Your task to perform on an android device: toggle data saver in the chrome app Image 0: 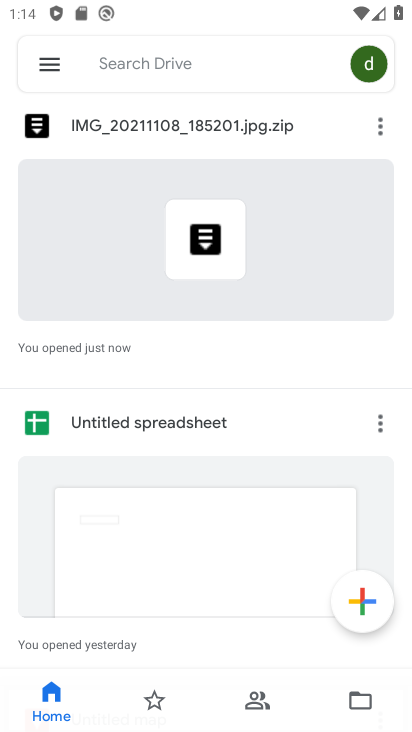
Step 0: press home button
Your task to perform on an android device: toggle data saver in the chrome app Image 1: 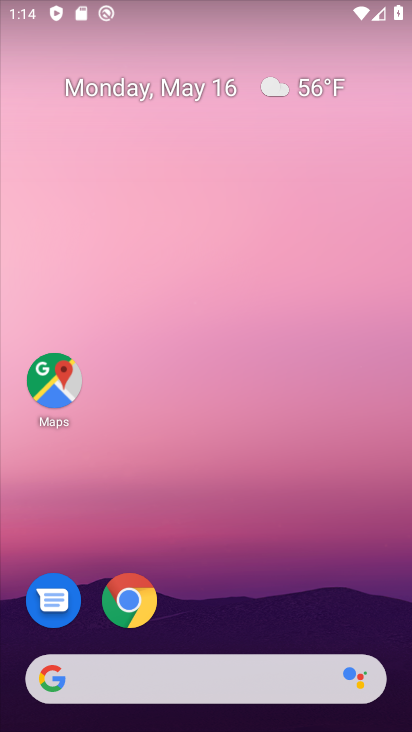
Step 1: click (141, 614)
Your task to perform on an android device: toggle data saver in the chrome app Image 2: 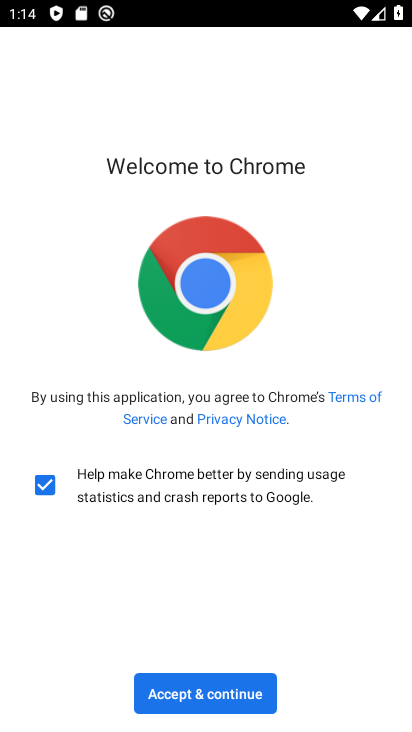
Step 2: click (243, 702)
Your task to perform on an android device: toggle data saver in the chrome app Image 3: 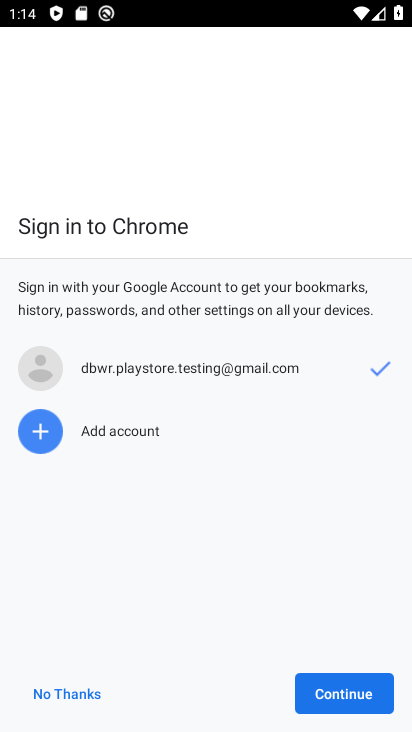
Step 3: click (311, 691)
Your task to perform on an android device: toggle data saver in the chrome app Image 4: 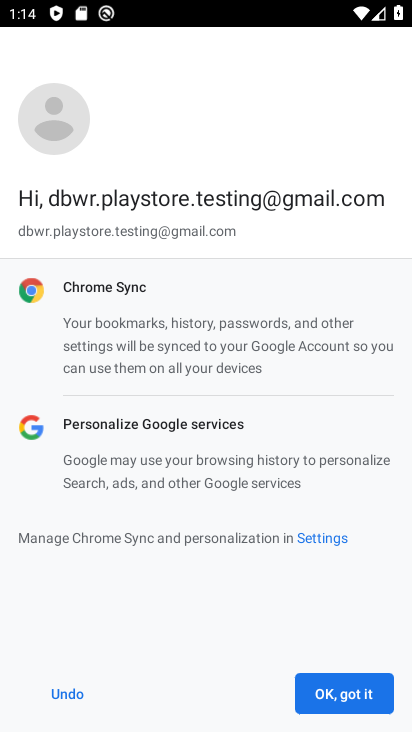
Step 4: click (311, 690)
Your task to perform on an android device: toggle data saver in the chrome app Image 5: 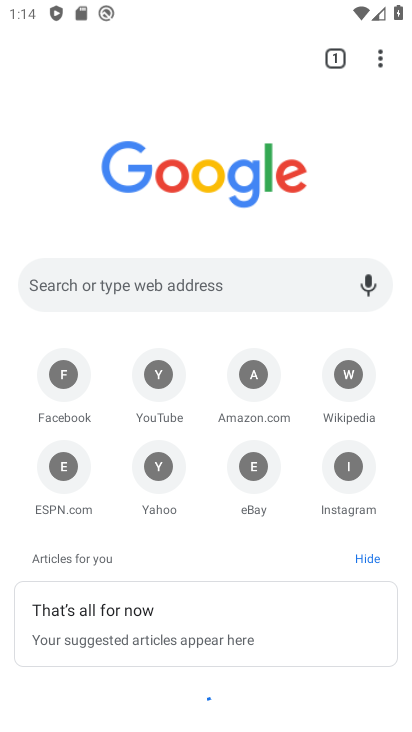
Step 5: click (382, 65)
Your task to perform on an android device: toggle data saver in the chrome app Image 6: 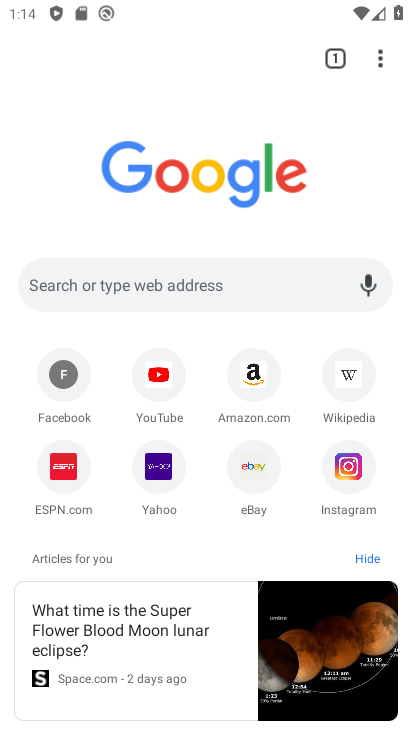
Step 6: click (384, 58)
Your task to perform on an android device: toggle data saver in the chrome app Image 7: 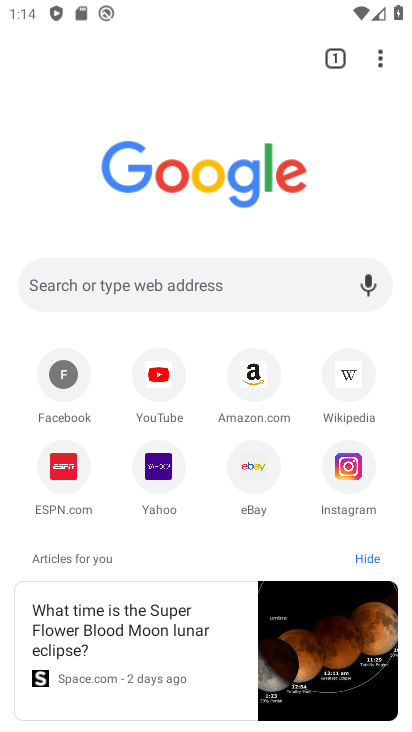
Step 7: click (380, 68)
Your task to perform on an android device: toggle data saver in the chrome app Image 8: 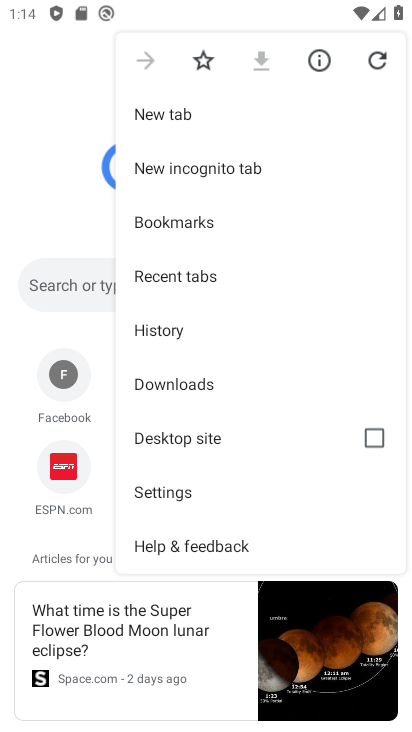
Step 8: click (188, 490)
Your task to perform on an android device: toggle data saver in the chrome app Image 9: 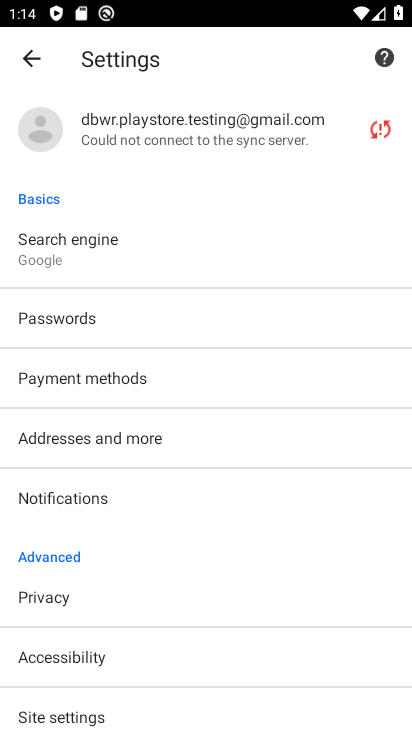
Step 9: drag from (175, 607) to (173, 201)
Your task to perform on an android device: toggle data saver in the chrome app Image 10: 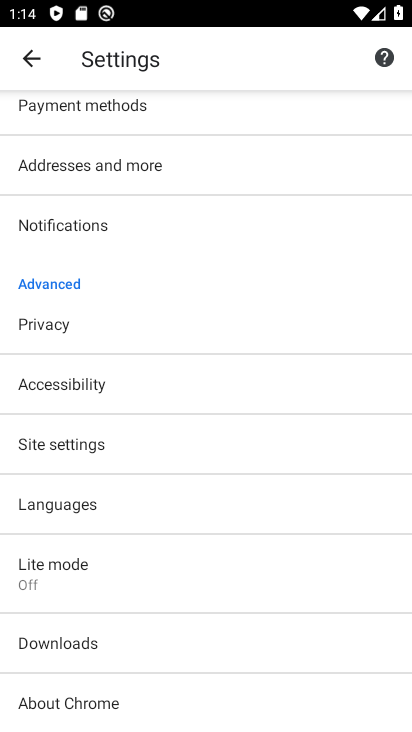
Step 10: click (91, 574)
Your task to perform on an android device: toggle data saver in the chrome app Image 11: 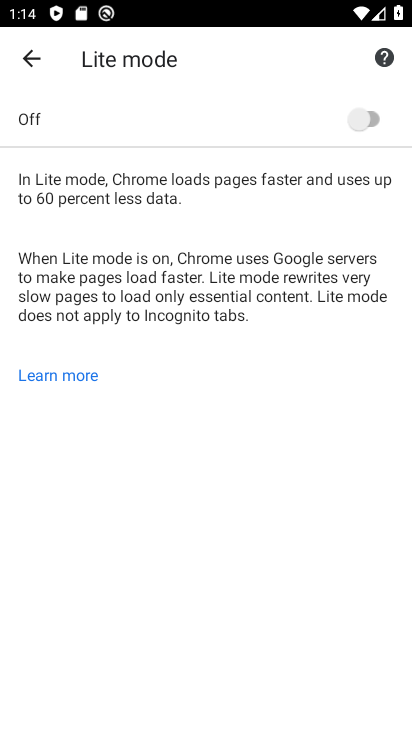
Step 11: click (359, 123)
Your task to perform on an android device: toggle data saver in the chrome app Image 12: 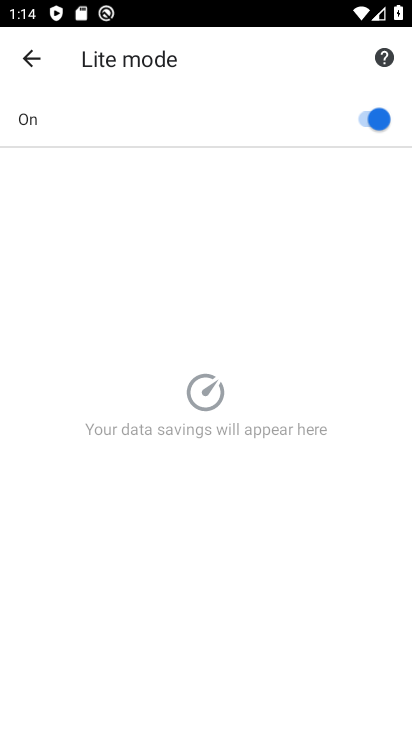
Step 12: task complete